Your task to perform on an android device: choose inbox layout in the gmail app Image 0: 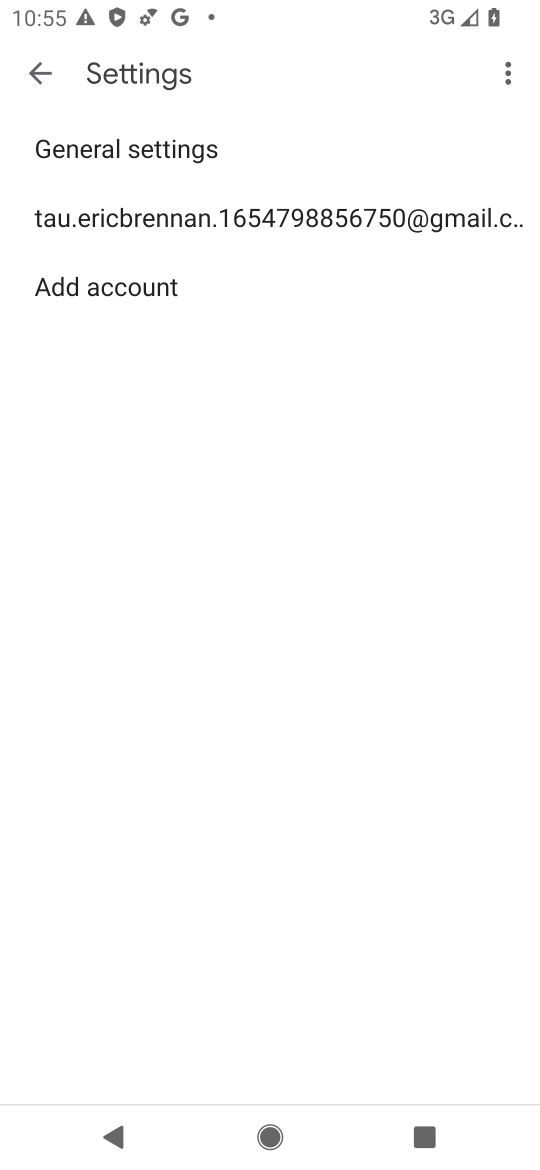
Step 0: press home button
Your task to perform on an android device: choose inbox layout in the gmail app Image 1: 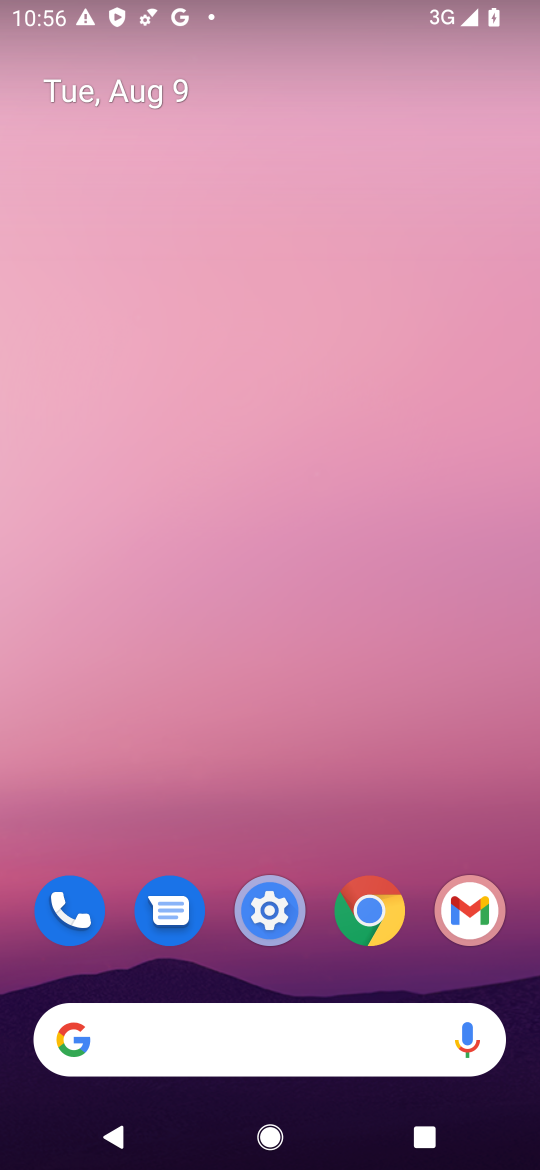
Step 1: drag from (6, 1110) to (364, 255)
Your task to perform on an android device: choose inbox layout in the gmail app Image 2: 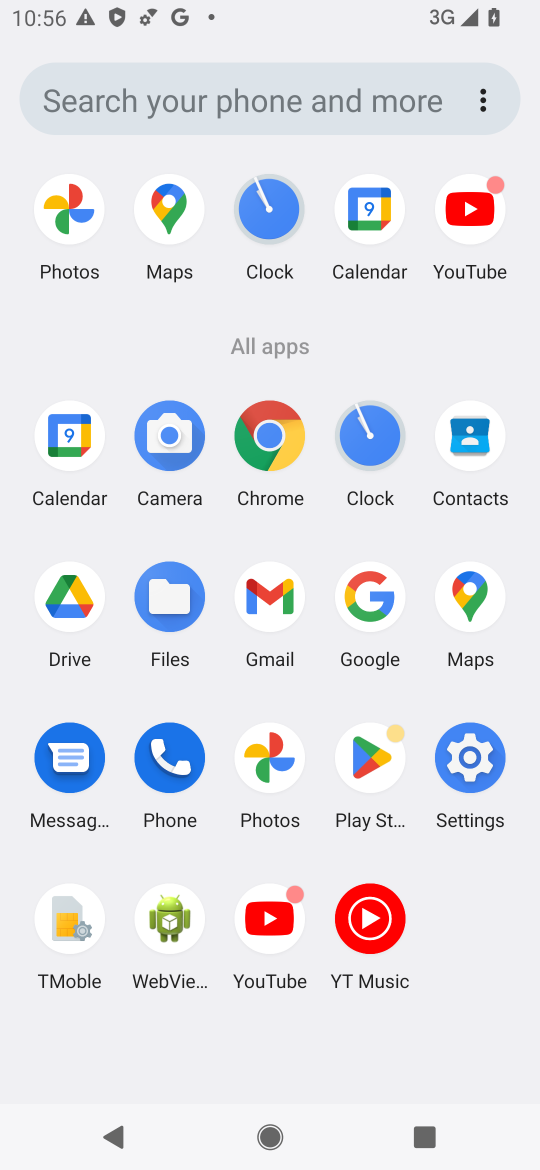
Step 2: click (277, 603)
Your task to perform on an android device: choose inbox layout in the gmail app Image 3: 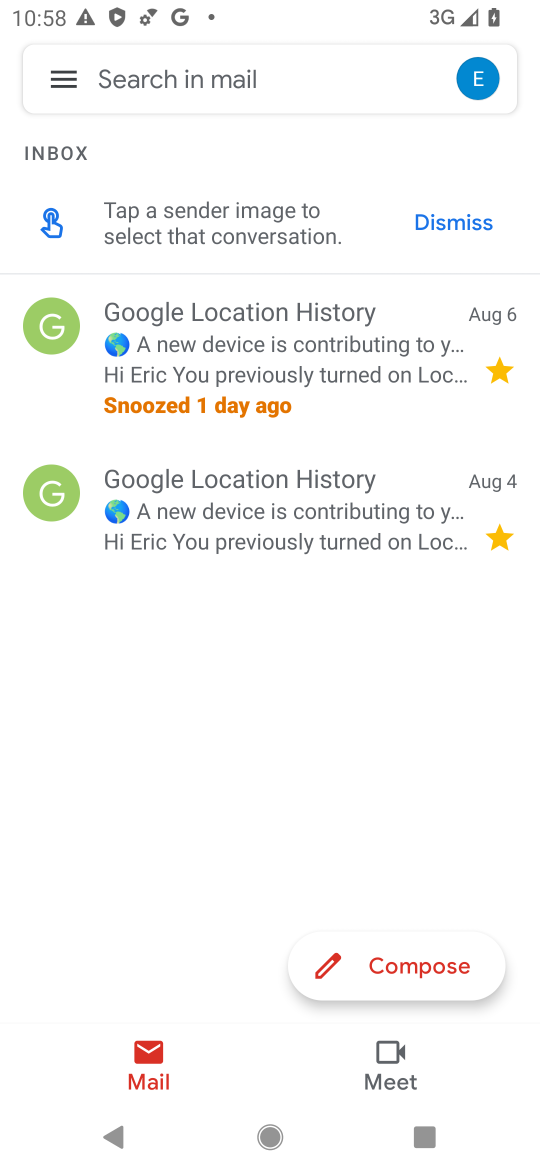
Step 3: task complete